Your task to perform on an android device: turn off wifi Image 0: 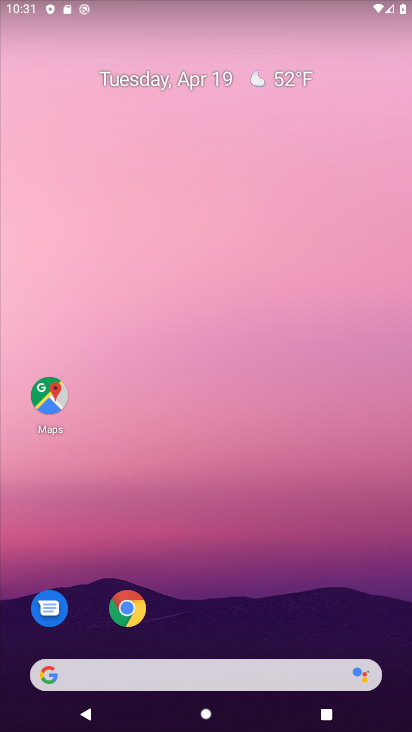
Step 0: drag from (351, 502) to (300, 205)
Your task to perform on an android device: turn off wifi Image 1: 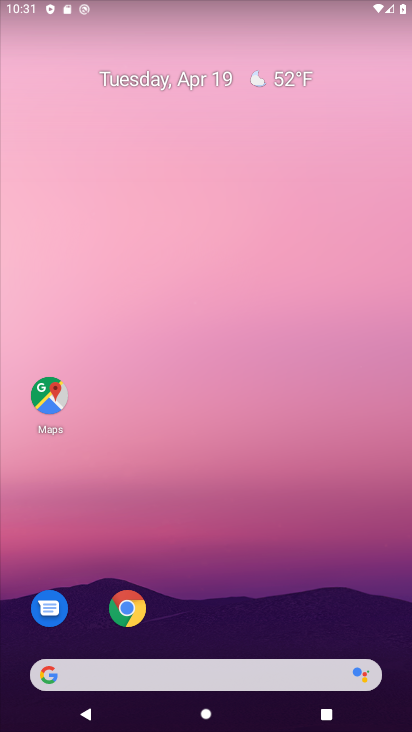
Step 1: drag from (285, 521) to (328, 131)
Your task to perform on an android device: turn off wifi Image 2: 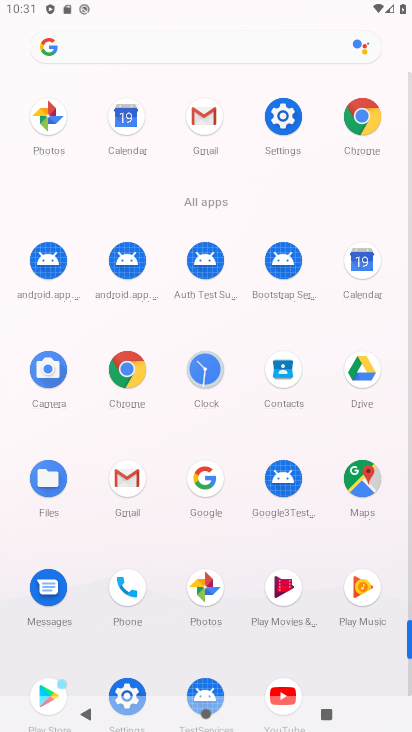
Step 2: click (286, 122)
Your task to perform on an android device: turn off wifi Image 3: 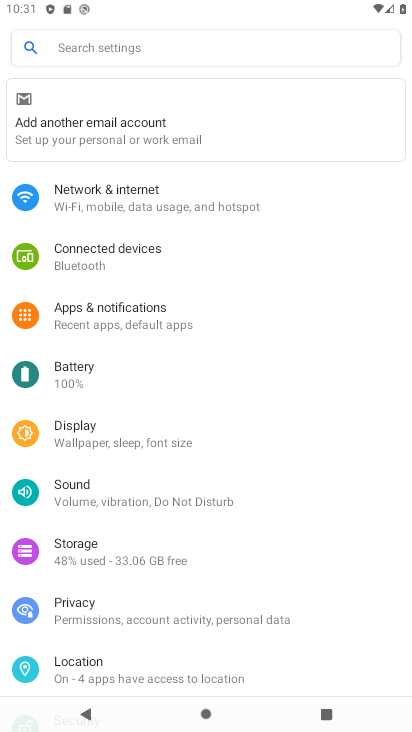
Step 3: click (254, 187)
Your task to perform on an android device: turn off wifi Image 4: 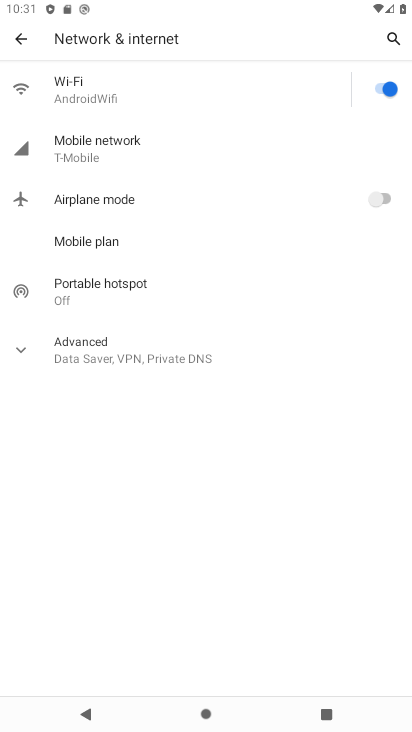
Step 4: click (385, 87)
Your task to perform on an android device: turn off wifi Image 5: 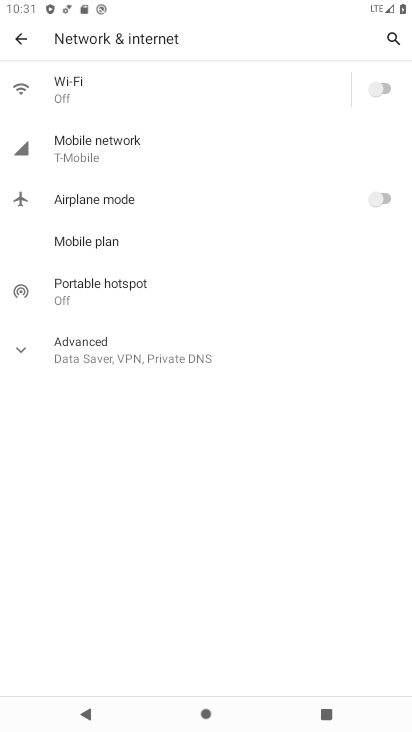
Step 5: task complete